Your task to perform on an android device: What's on my calendar tomorrow? Image 0: 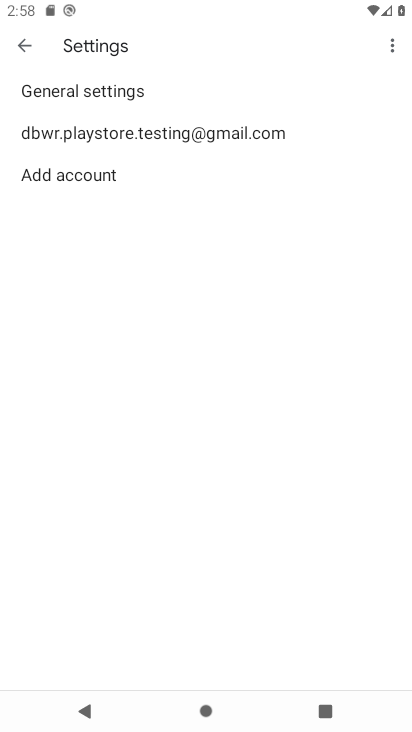
Step 0: press home button
Your task to perform on an android device: What's on my calendar tomorrow? Image 1: 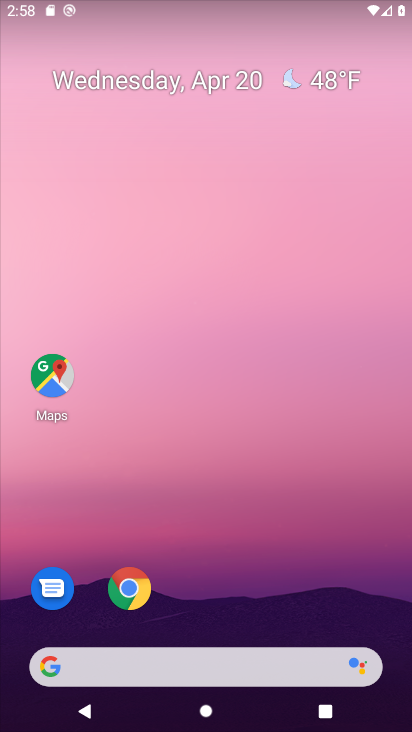
Step 1: drag from (358, 598) to (353, 182)
Your task to perform on an android device: What's on my calendar tomorrow? Image 2: 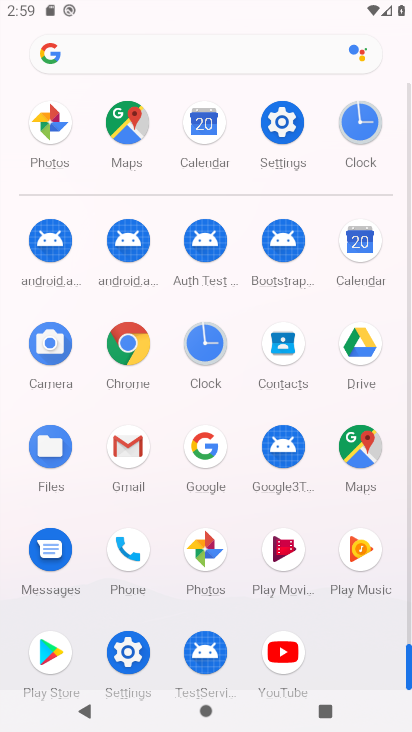
Step 2: click (361, 250)
Your task to perform on an android device: What's on my calendar tomorrow? Image 3: 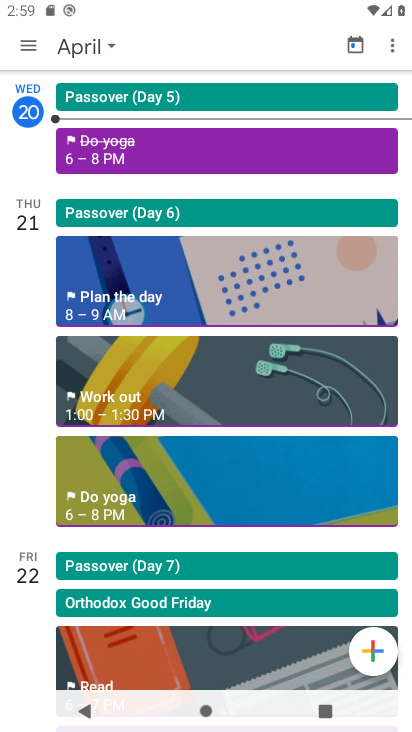
Step 3: click (110, 41)
Your task to perform on an android device: What's on my calendar tomorrow? Image 4: 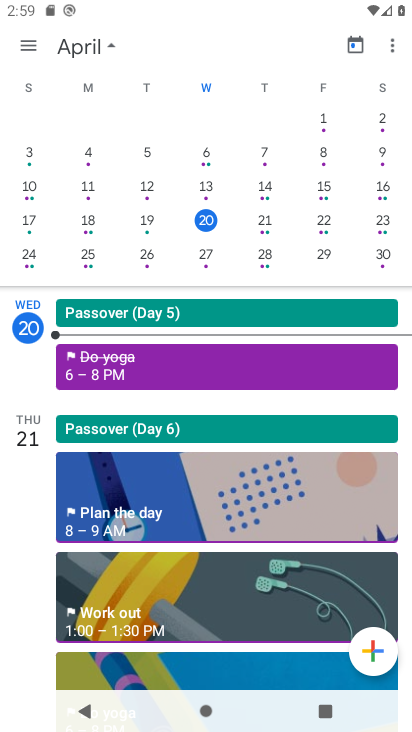
Step 4: click (258, 218)
Your task to perform on an android device: What's on my calendar tomorrow? Image 5: 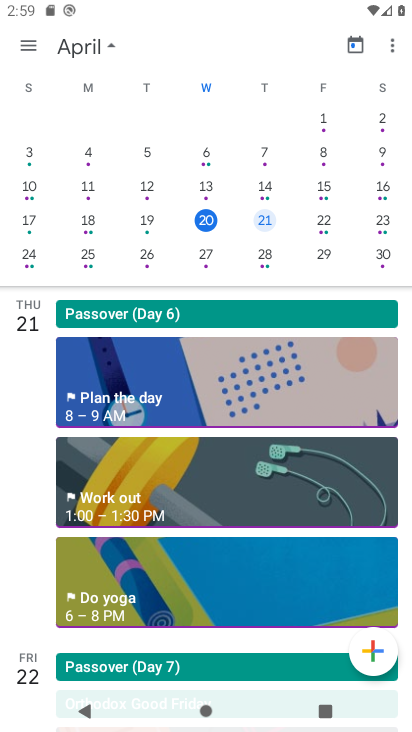
Step 5: task complete